Your task to perform on an android device: delete the emails in spam in the gmail app Image 0: 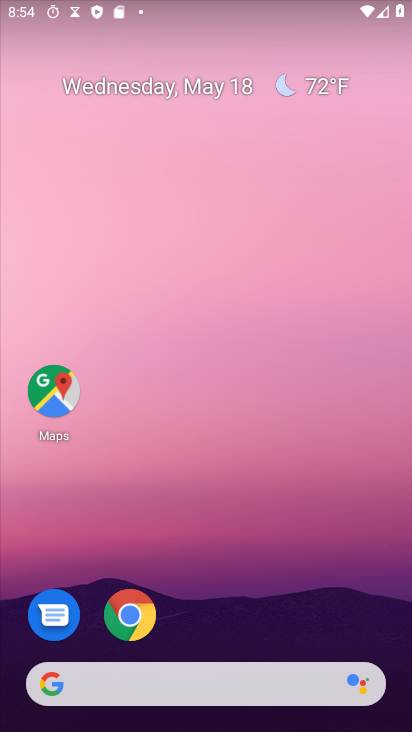
Step 0: drag from (269, 603) to (272, 4)
Your task to perform on an android device: delete the emails in spam in the gmail app Image 1: 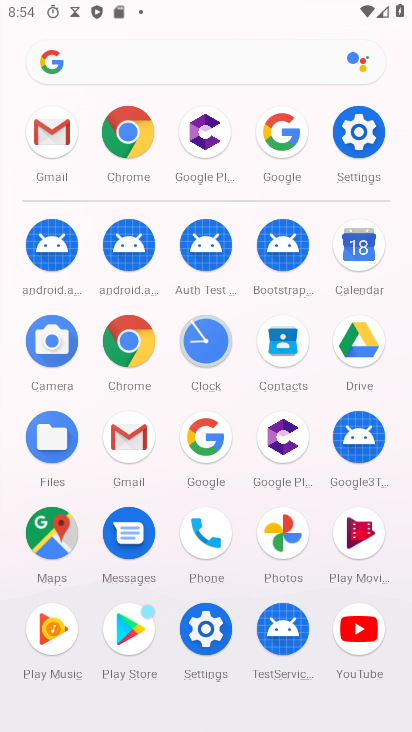
Step 1: click (60, 142)
Your task to perform on an android device: delete the emails in spam in the gmail app Image 2: 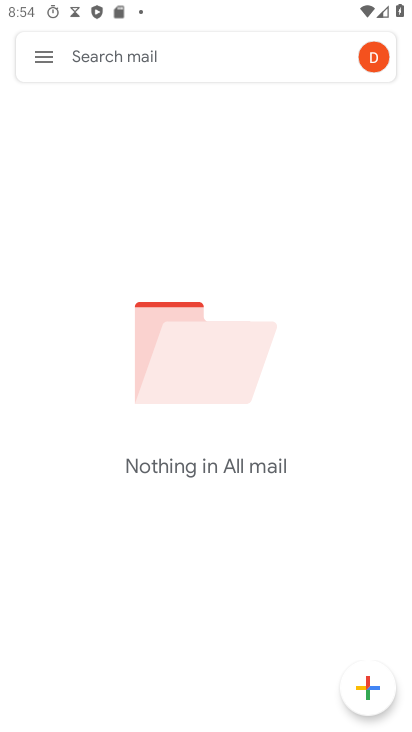
Step 2: click (47, 59)
Your task to perform on an android device: delete the emails in spam in the gmail app Image 3: 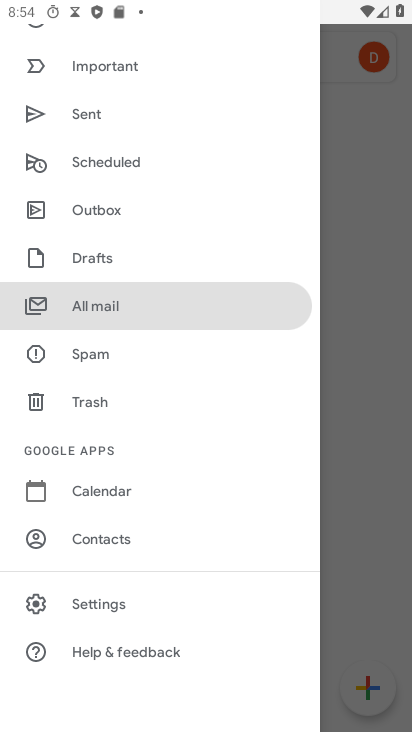
Step 3: click (109, 366)
Your task to perform on an android device: delete the emails in spam in the gmail app Image 4: 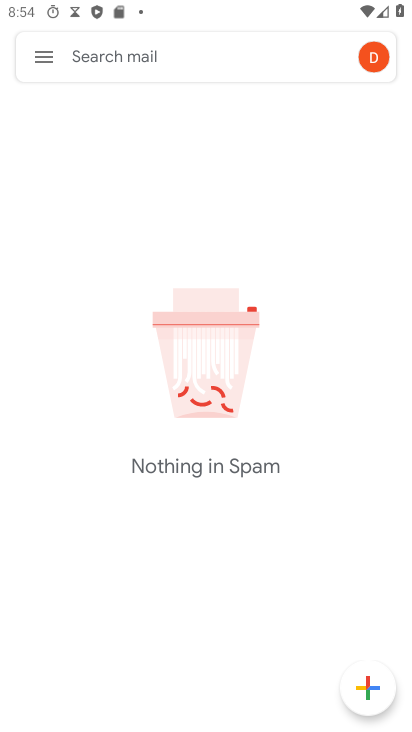
Step 4: task complete